Your task to perform on an android device: clear history in the chrome app Image 0: 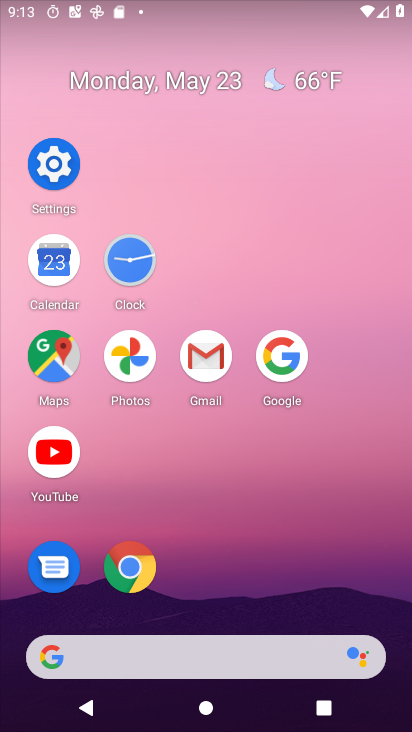
Step 0: click (144, 563)
Your task to perform on an android device: clear history in the chrome app Image 1: 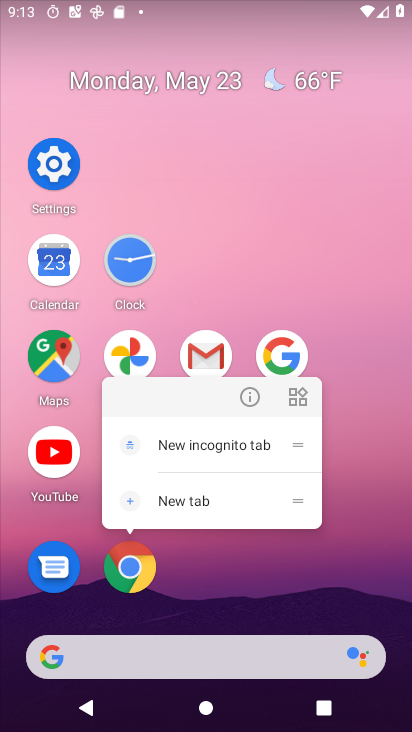
Step 1: click (123, 586)
Your task to perform on an android device: clear history in the chrome app Image 2: 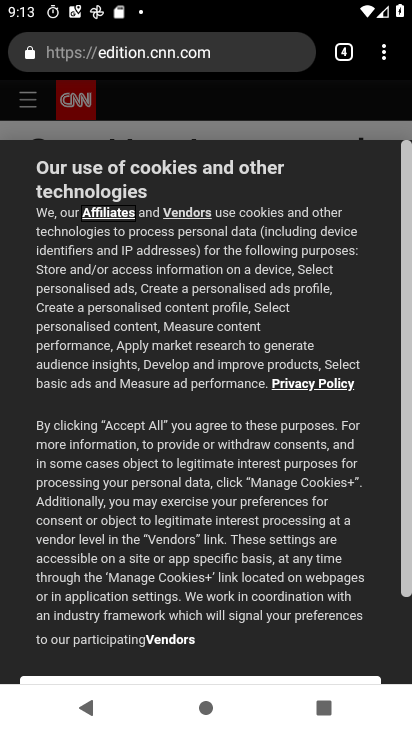
Step 2: click (375, 53)
Your task to perform on an android device: clear history in the chrome app Image 3: 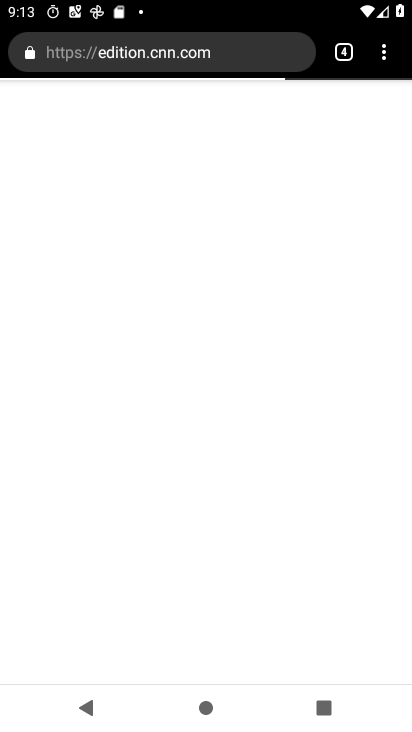
Step 3: click (381, 50)
Your task to perform on an android device: clear history in the chrome app Image 4: 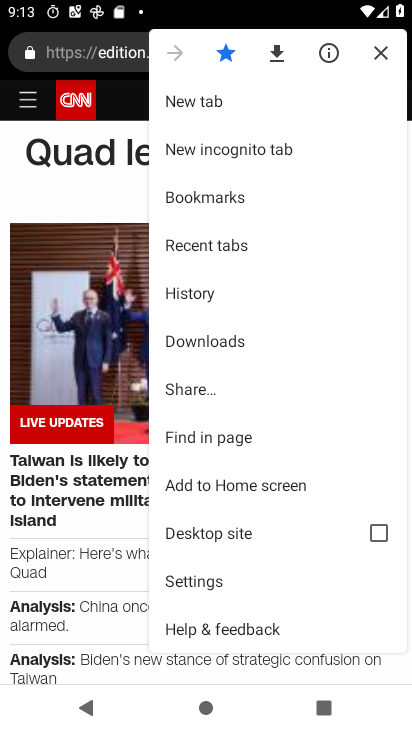
Step 4: click (227, 280)
Your task to perform on an android device: clear history in the chrome app Image 5: 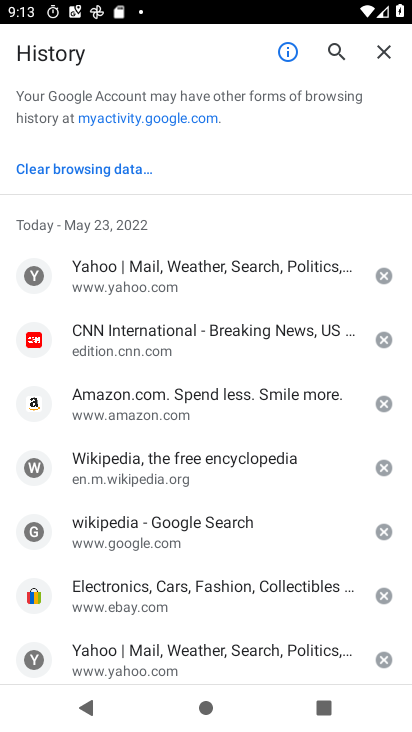
Step 5: click (95, 182)
Your task to perform on an android device: clear history in the chrome app Image 6: 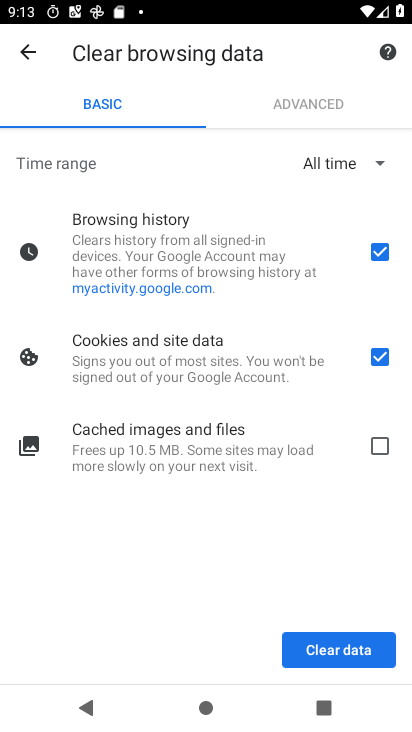
Step 6: click (338, 652)
Your task to perform on an android device: clear history in the chrome app Image 7: 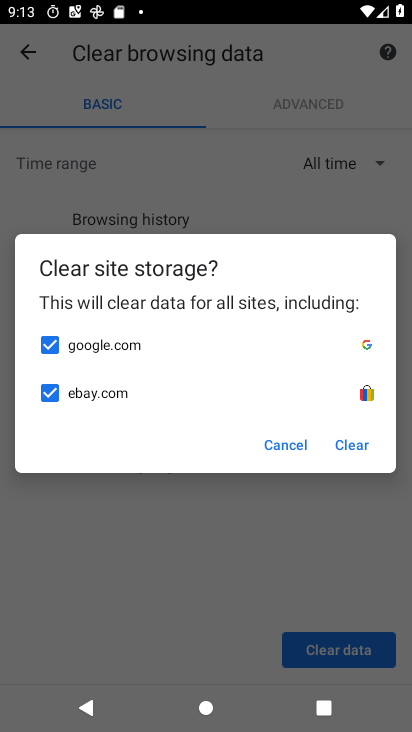
Step 7: click (364, 433)
Your task to perform on an android device: clear history in the chrome app Image 8: 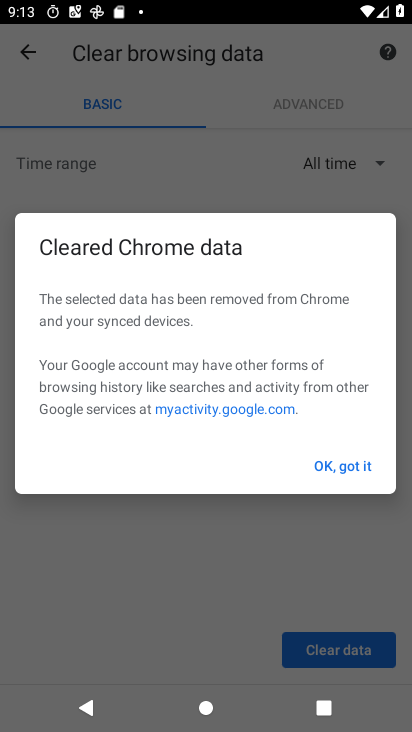
Step 8: click (342, 454)
Your task to perform on an android device: clear history in the chrome app Image 9: 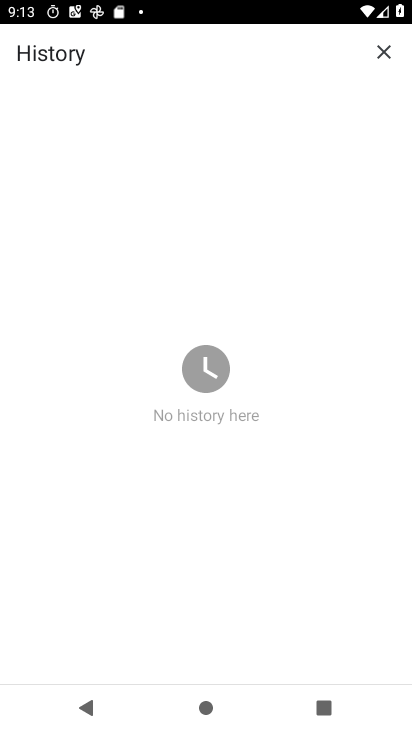
Step 9: task complete